Your task to perform on an android device: Search for a 1/2 in. x 1/2 in. x 24 in. 600 grit sander on Lowes.com Image 0: 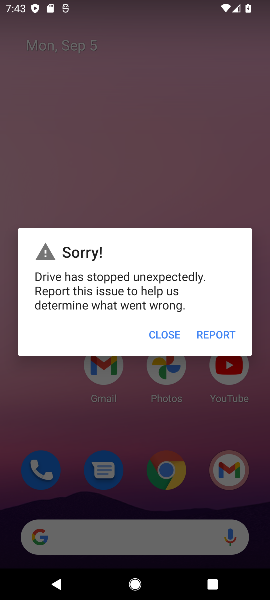
Step 0: press home button
Your task to perform on an android device: Search for a 1/2 in. x 1/2 in. x 24 in. 600 grit sander on Lowes.com Image 1: 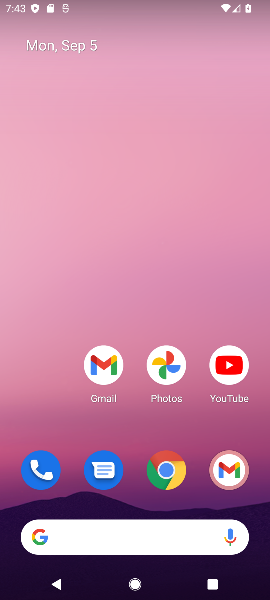
Step 1: click (145, 534)
Your task to perform on an android device: Search for a 1/2 in. x 1/2 in. x 24 in. 600 grit sander on Lowes.com Image 2: 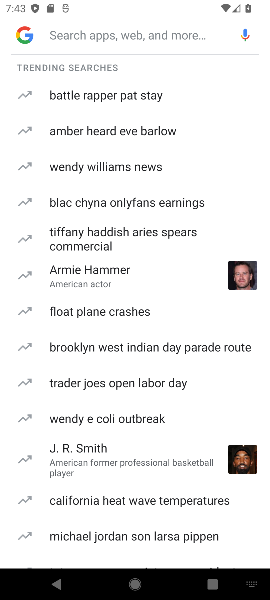
Step 2: type "lowes.com"
Your task to perform on an android device: Search for a 1/2 in. x 1/2 in. x 24 in. 600 grit sander on Lowes.com Image 3: 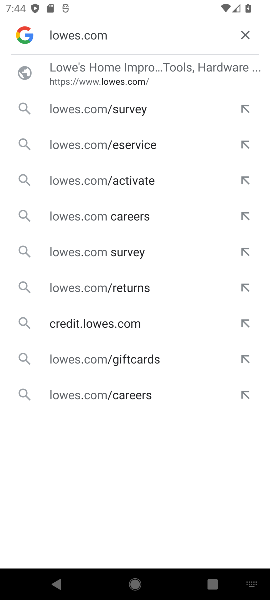
Step 3: click (79, 67)
Your task to perform on an android device: Search for a 1/2 in. x 1/2 in. x 24 in. 600 grit sander on Lowes.com Image 4: 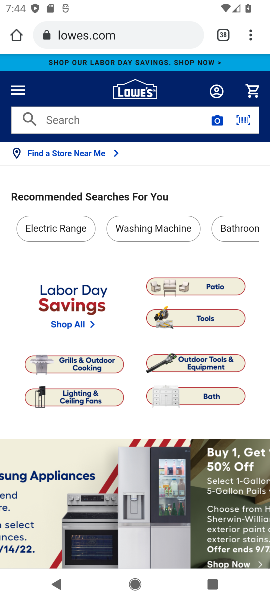
Step 4: click (86, 119)
Your task to perform on an android device: Search for a 1/2 in. x 1/2 in. x 24 in. 600 grit sander on Lowes.com Image 5: 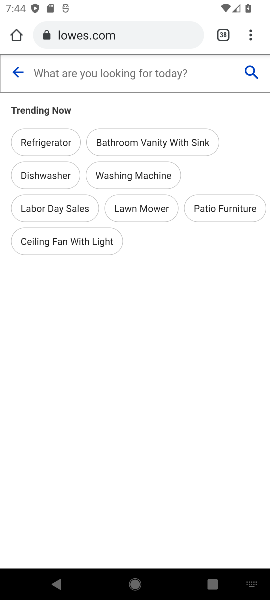
Step 5: type "1/2 in. x 1/2 in. x 24 in. 600 grit sander"
Your task to perform on an android device: Search for a 1/2 in. x 1/2 in. x 24 in. 600 grit sander on Lowes.com Image 6: 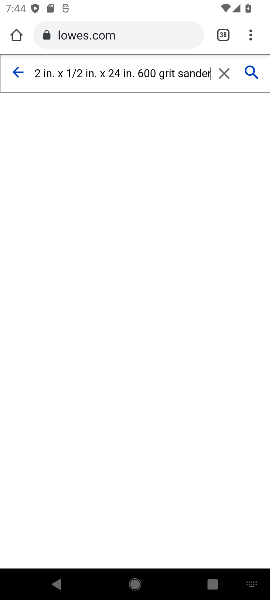
Step 6: click (248, 71)
Your task to perform on an android device: Search for a 1/2 in. x 1/2 in. x 24 in. 600 grit sander on Lowes.com Image 7: 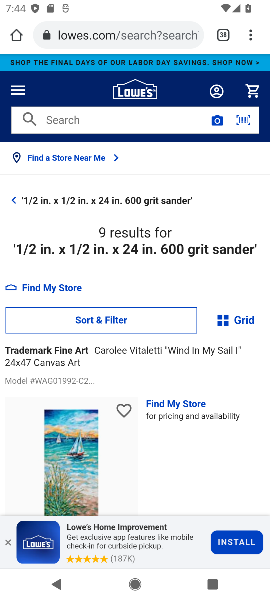
Step 7: task complete